Your task to perform on an android device: delete the emails in spam in the gmail app Image 0: 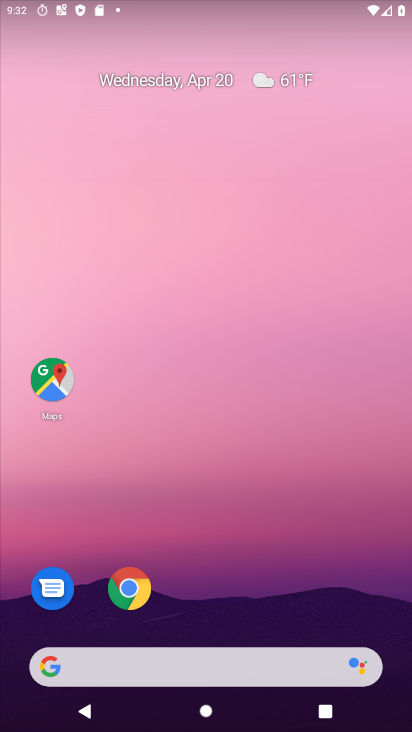
Step 0: drag from (285, 582) to (148, 24)
Your task to perform on an android device: delete the emails in spam in the gmail app Image 1: 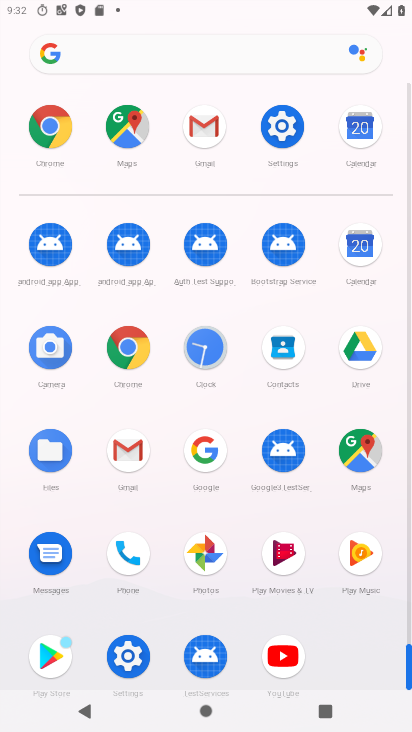
Step 1: click (128, 442)
Your task to perform on an android device: delete the emails in spam in the gmail app Image 2: 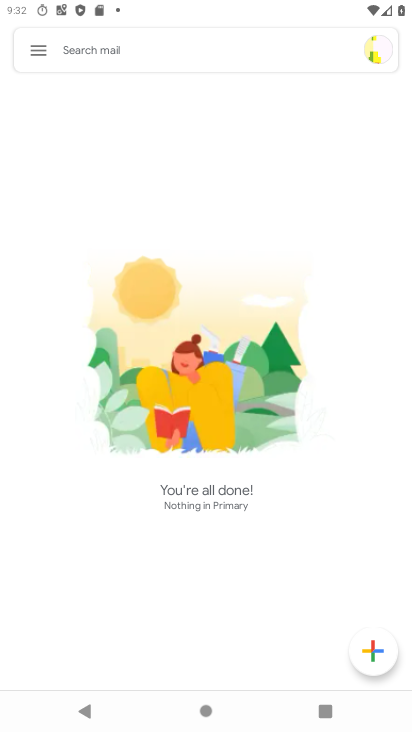
Step 2: click (38, 43)
Your task to perform on an android device: delete the emails in spam in the gmail app Image 3: 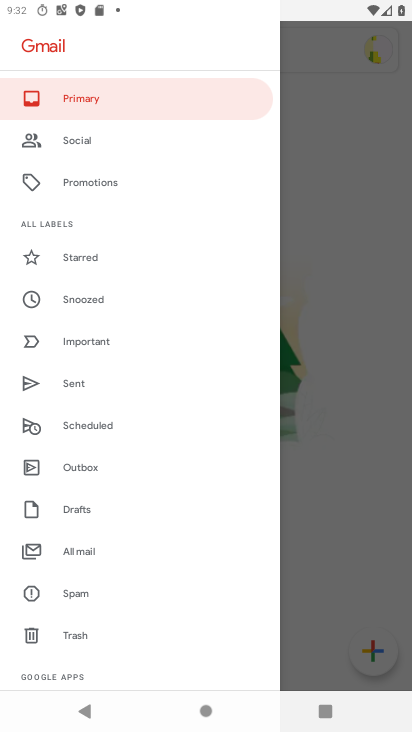
Step 3: drag from (137, 598) to (149, 195)
Your task to perform on an android device: delete the emails in spam in the gmail app Image 4: 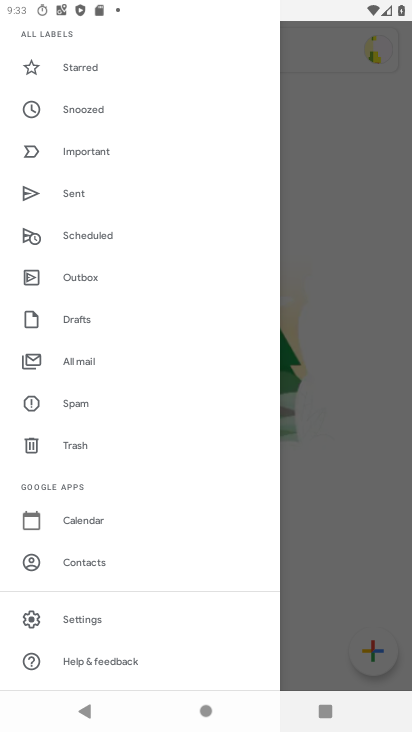
Step 4: click (85, 401)
Your task to perform on an android device: delete the emails in spam in the gmail app Image 5: 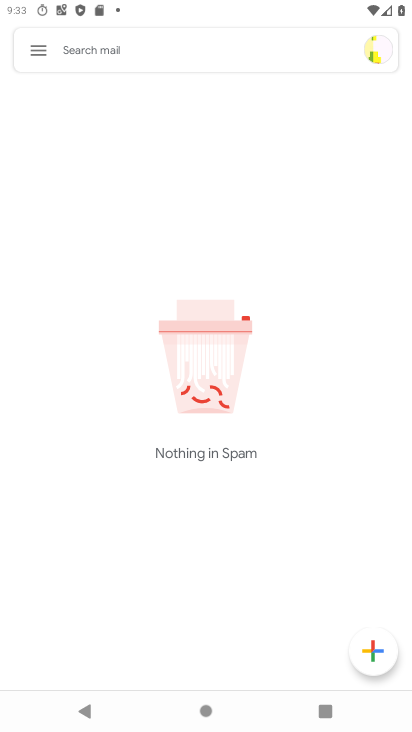
Step 5: task complete